Your task to perform on an android device: Open the calendar and show me this week's events? Image 0: 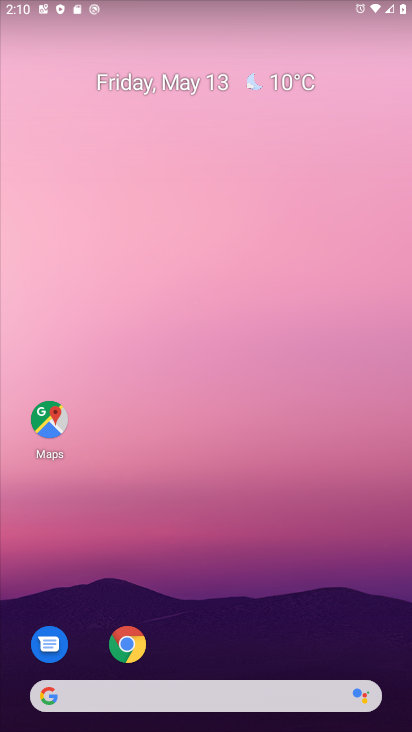
Step 0: drag from (212, 728) to (201, 169)
Your task to perform on an android device: Open the calendar and show me this week's events? Image 1: 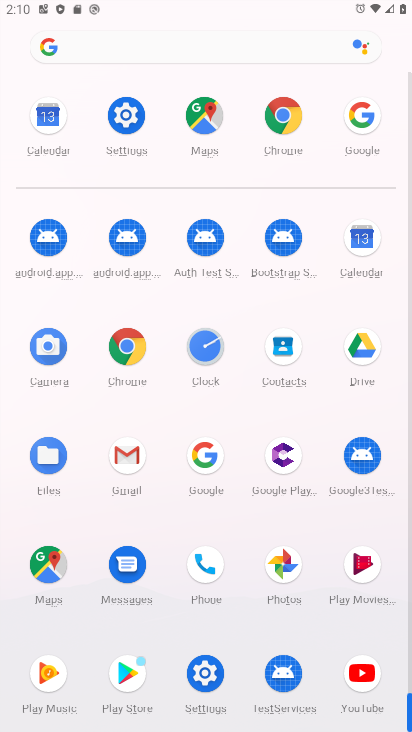
Step 1: click (361, 242)
Your task to perform on an android device: Open the calendar and show me this week's events? Image 2: 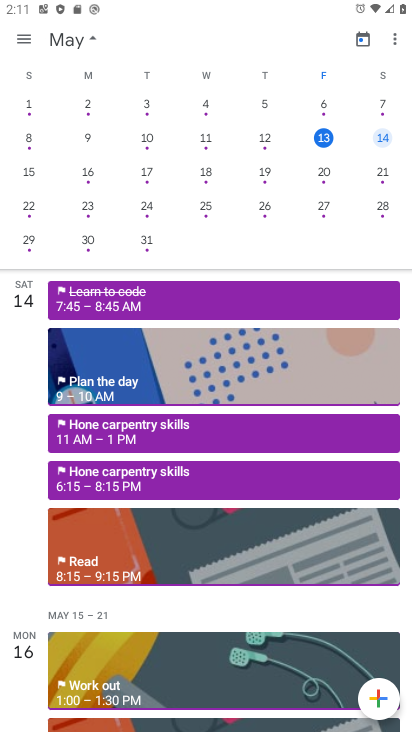
Step 2: click (21, 40)
Your task to perform on an android device: Open the calendar and show me this week's events? Image 3: 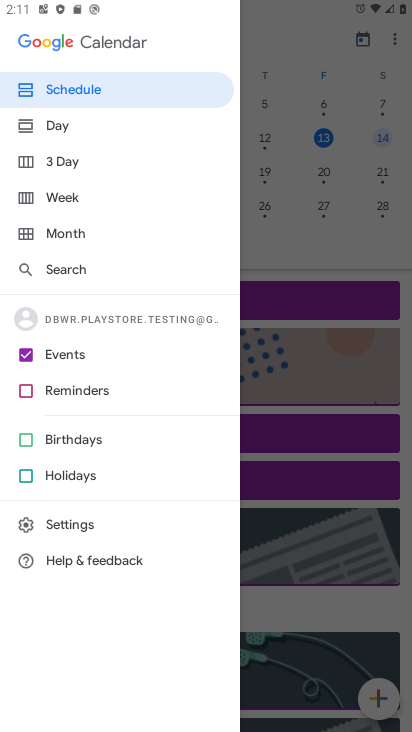
Step 3: click (75, 193)
Your task to perform on an android device: Open the calendar and show me this week's events? Image 4: 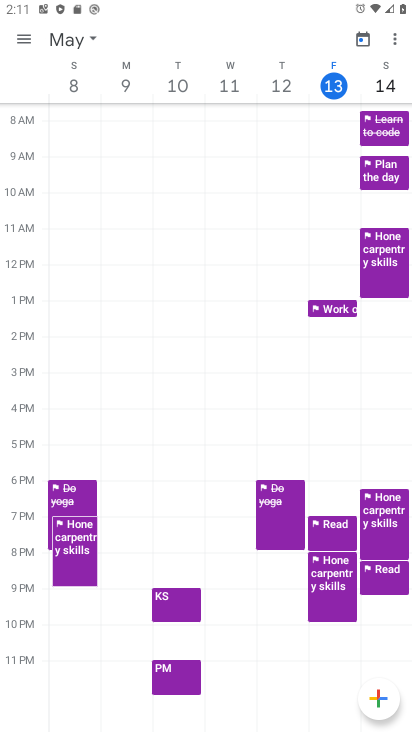
Step 4: task complete